Your task to perform on an android device: turn off data saver in the chrome app Image 0: 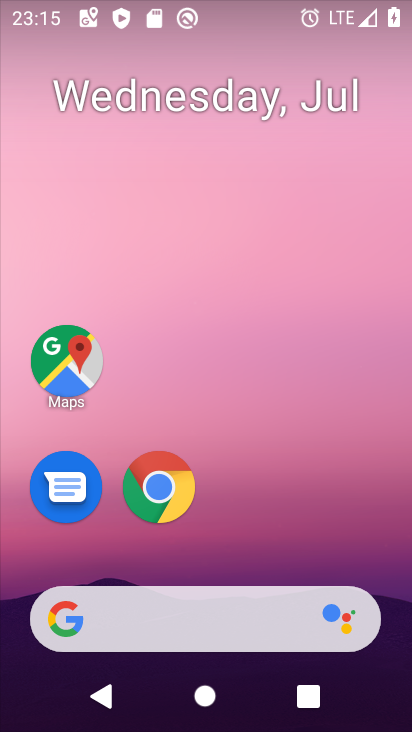
Step 0: click (179, 472)
Your task to perform on an android device: turn off data saver in the chrome app Image 1: 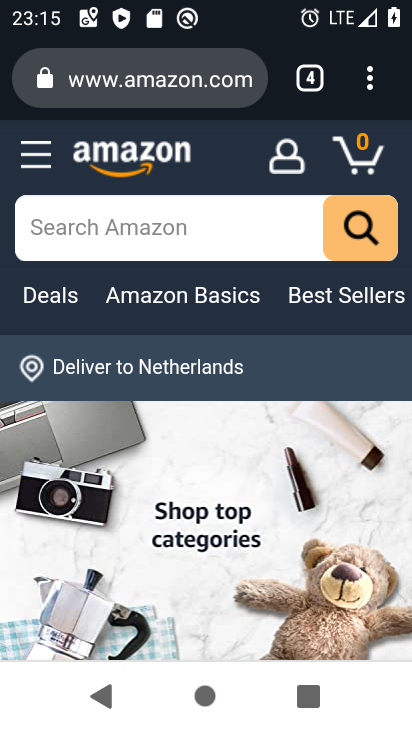
Step 1: drag from (373, 64) to (126, 542)
Your task to perform on an android device: turn off data saver in the chrome app Image 2: 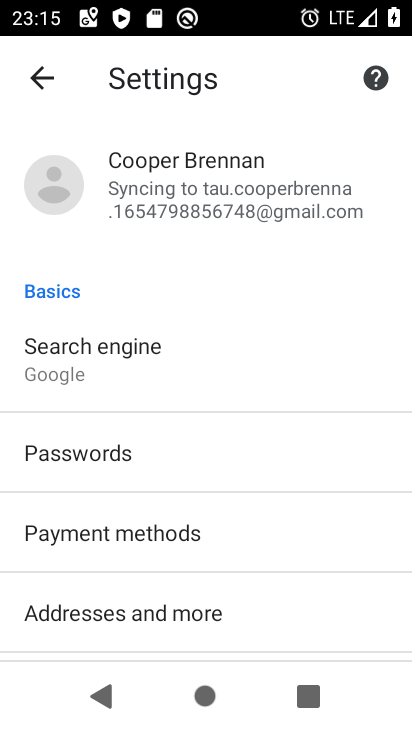
Step 2: drag from (127, 608) to (191, 279)
Your task to perform on an android device: turn off data saver in the chrome app Image 3: 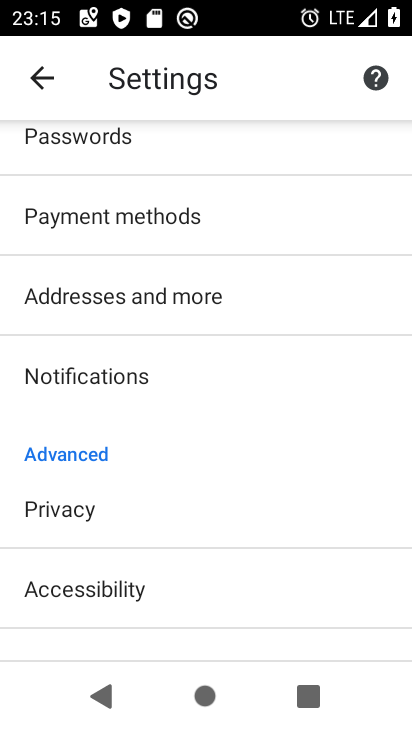
Step 3: drag from (174, 540) to (222, 201)
Your task to perform on an android device: turn off data saver in the chrome app Image 4: 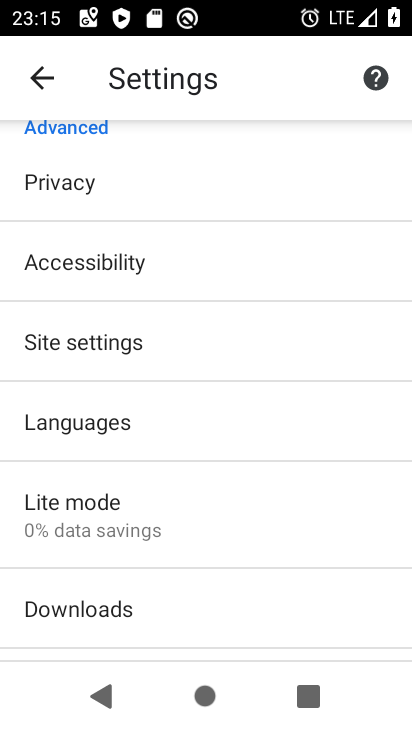
Step 4: click (153, 505)
Your task to perform on an android device: turn off data saver in the chrome app Image 5: 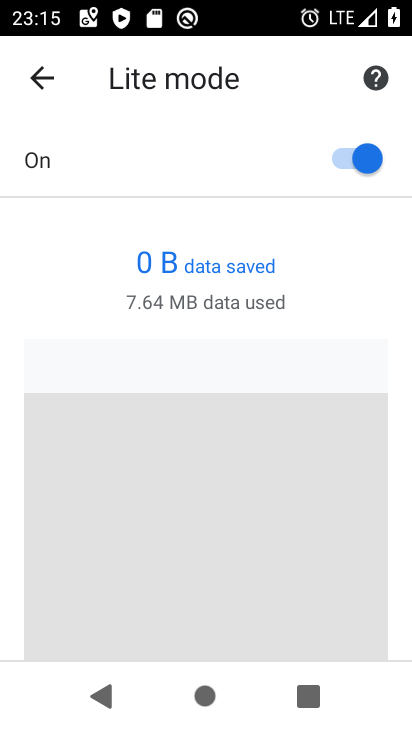
Step 5: click (356, 162)
Your task to perform on an android device: turn off data saver in the chrome app Image 6: 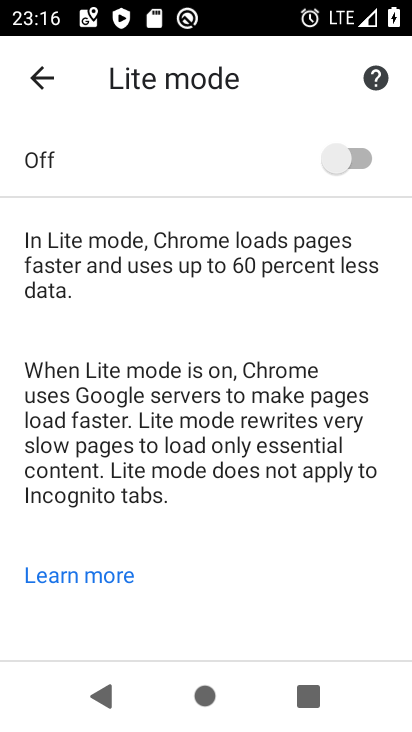
Step 6: task complete